Your task to perform on an android device: Add "usb-a" to the cart on ebay.com, then select checkout. Image 0: 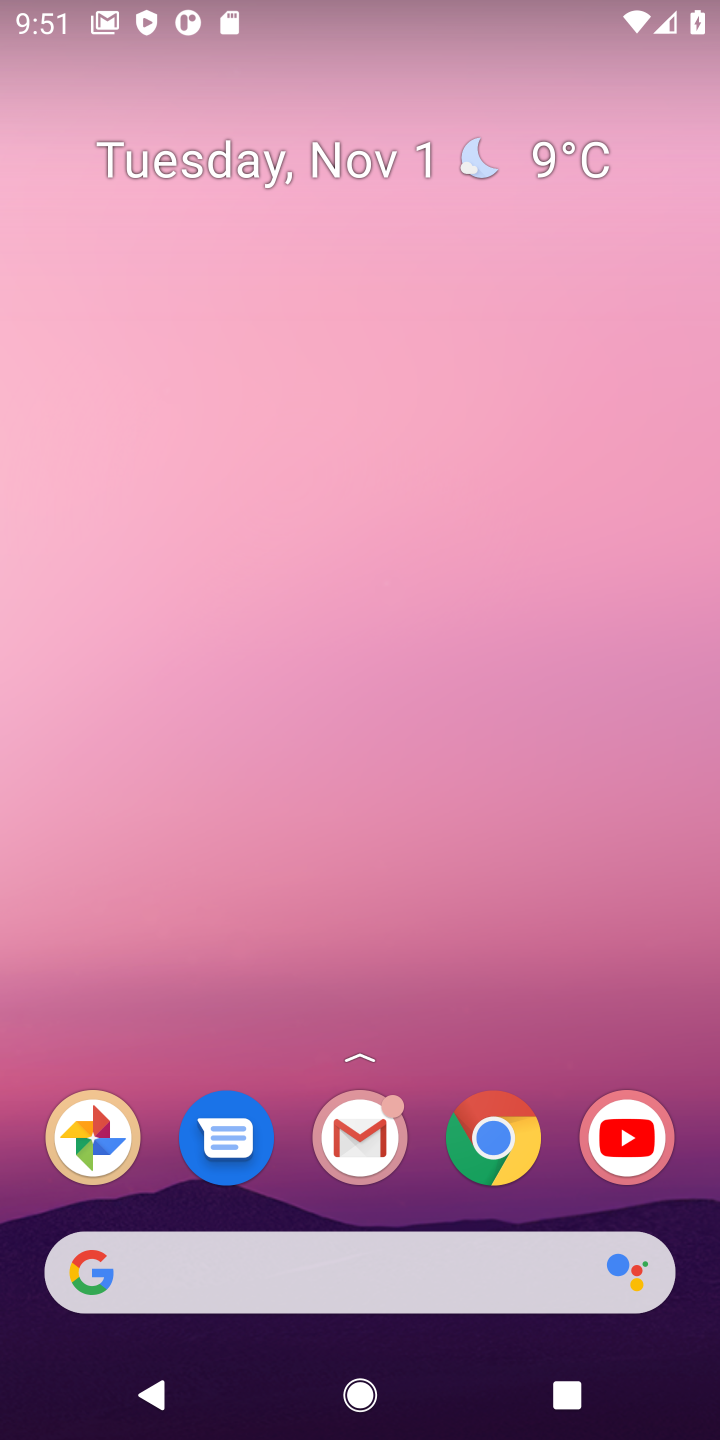
Step 0: click (502, 1129)
Your task to perform on an android device: Add "usb-a" to the cart on ebay.com, then select checkout. Image 1: 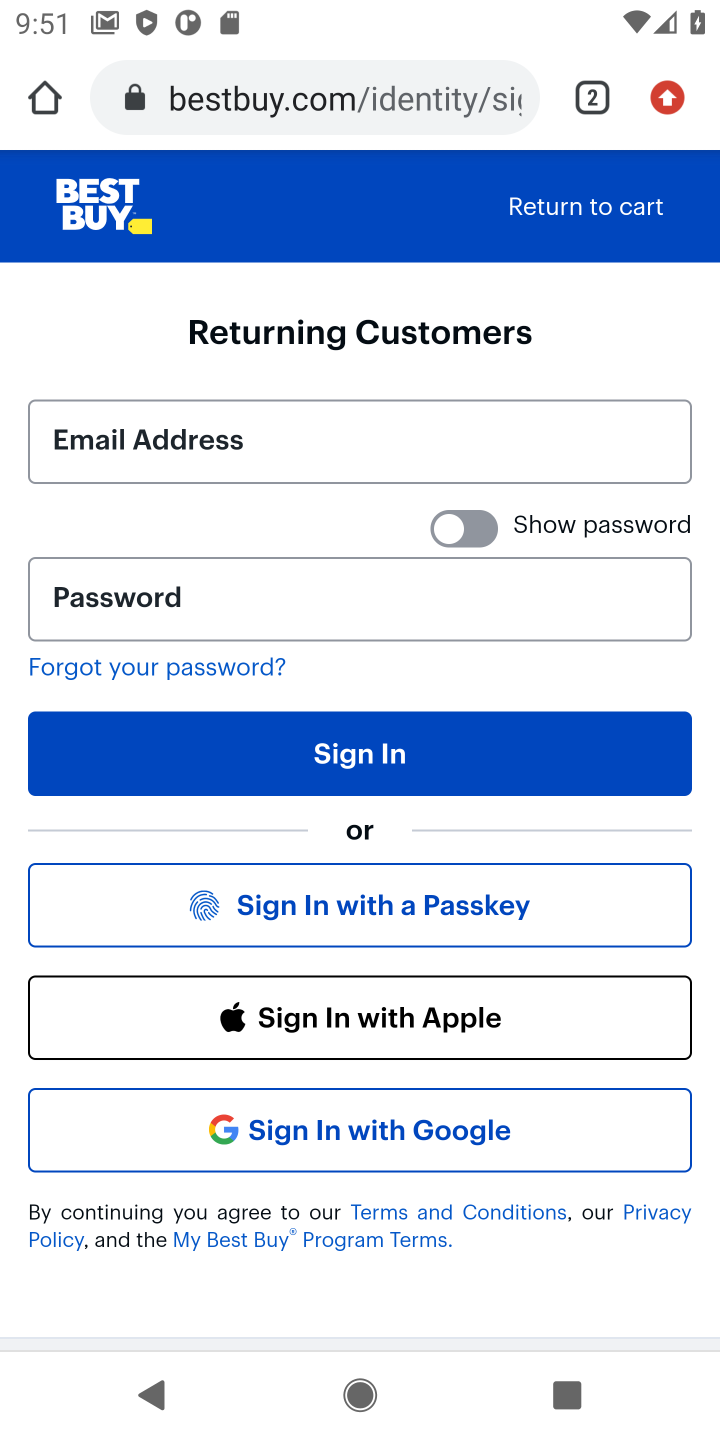
Step 1: click (589, 106)
Your task to perform on an android device: Add "usb-a" to the cart on ebay.com, then select checkout. Image 2: 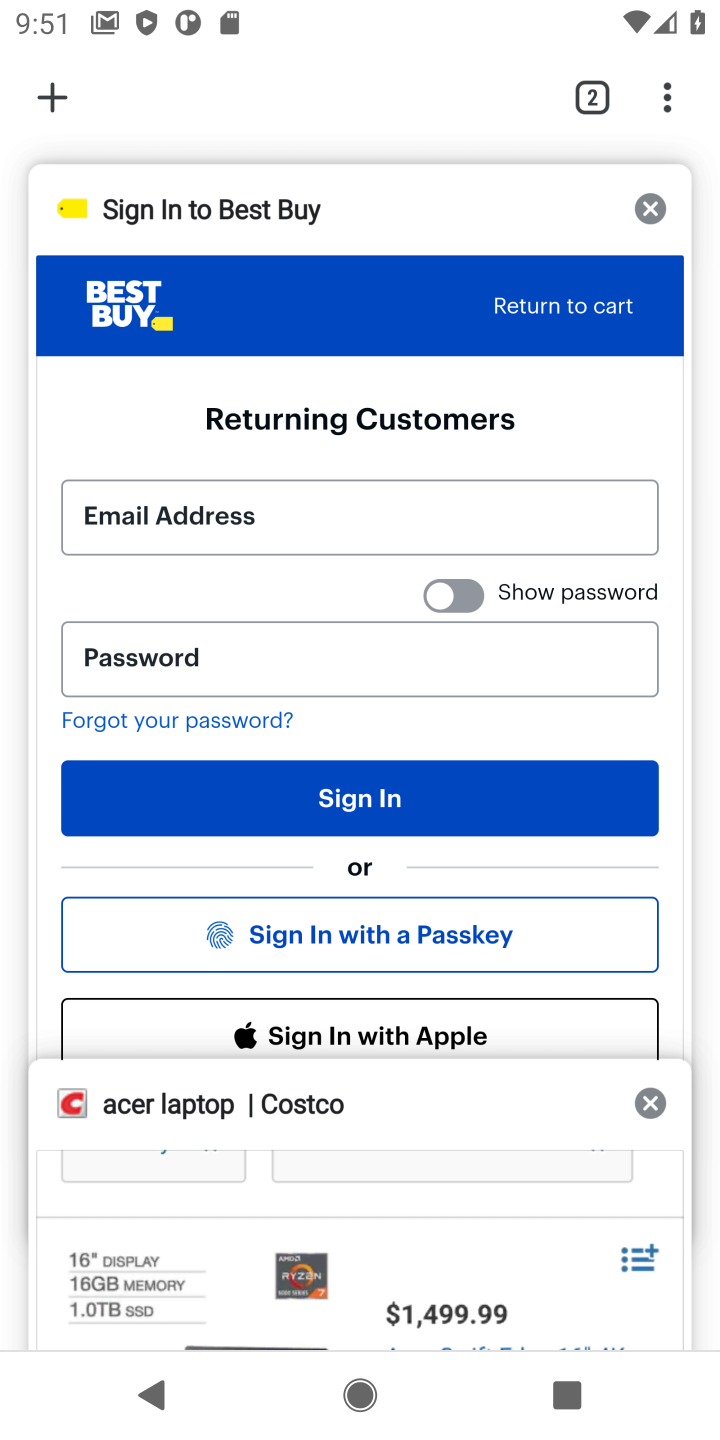
Step 2: click (52, 100)
Your task to perform on an android device: Add "usb-a" to the cart on ebay.com, then select checkout. Image 3: 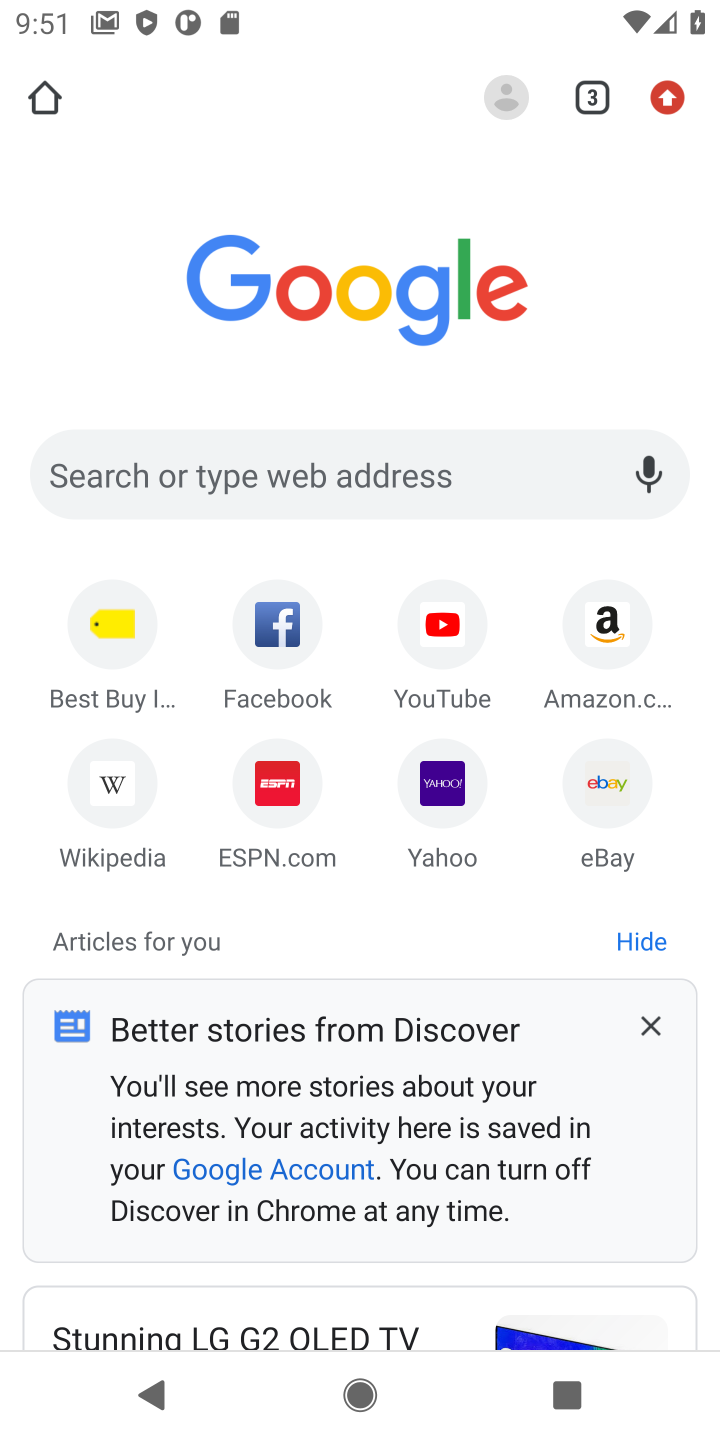
Step 3: click (435, 469)
Your task to perform on an android device: Add "usb-a" to the cart on ebay.com, then select checkout. Image 4: 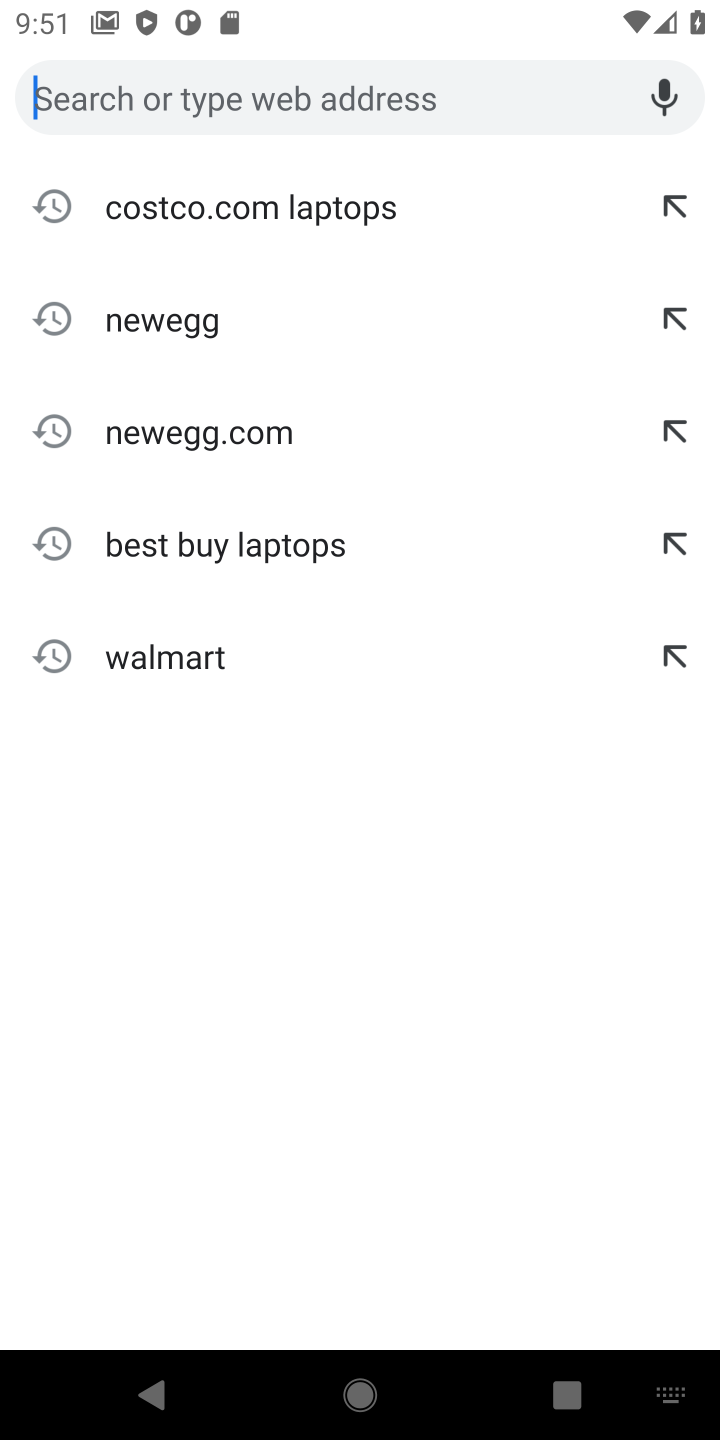
Step 4: type "ebay"
Your task to perform on an android device: Add "usb-a" to the cart on ebay.com, then select checkout. Image 5: 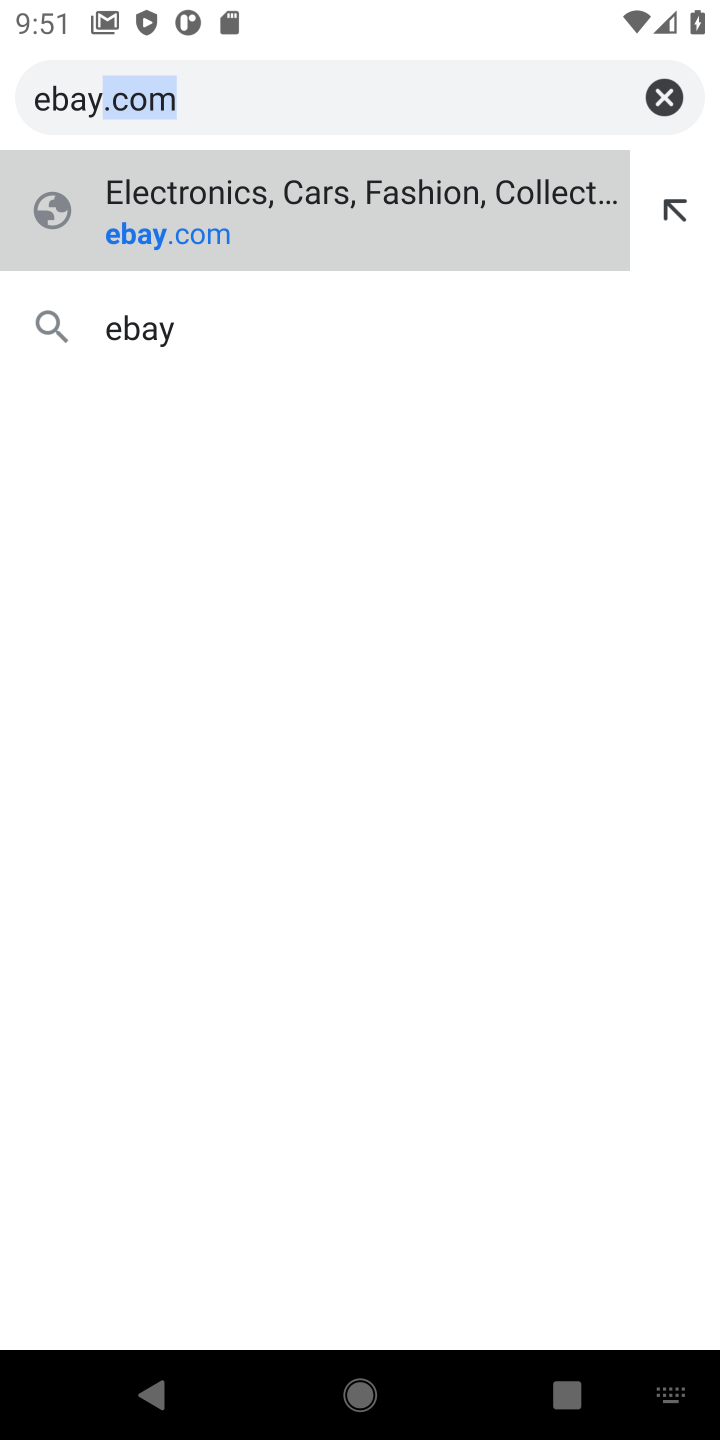
Step 5: click (205, 230)
Your task to perform on an android device: Add "usb-a" to the cart on ebay.com, then select checkout. Image 6: 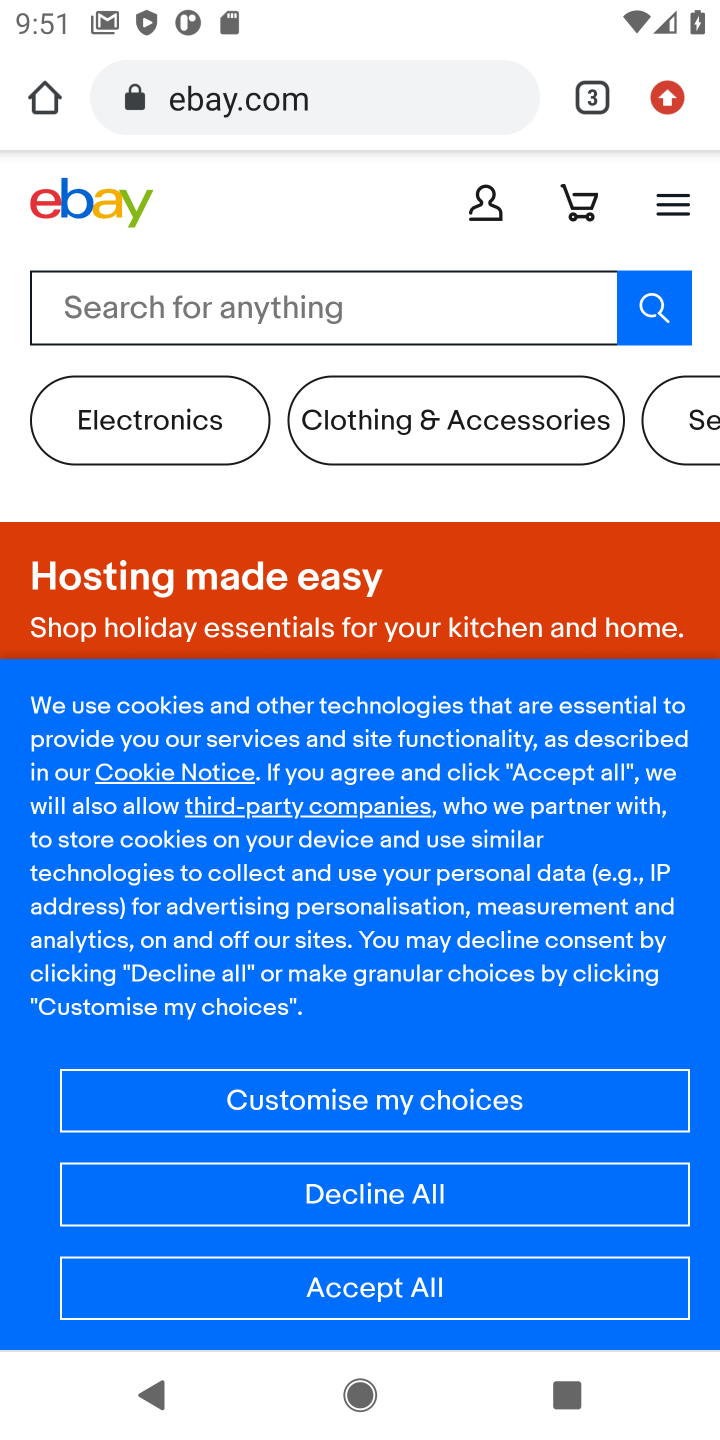
Step 6: click (307, 294)
Your task to perform on an android device: Add "usb-a" to the cart on ebay.com, then select checkout. Image 7: 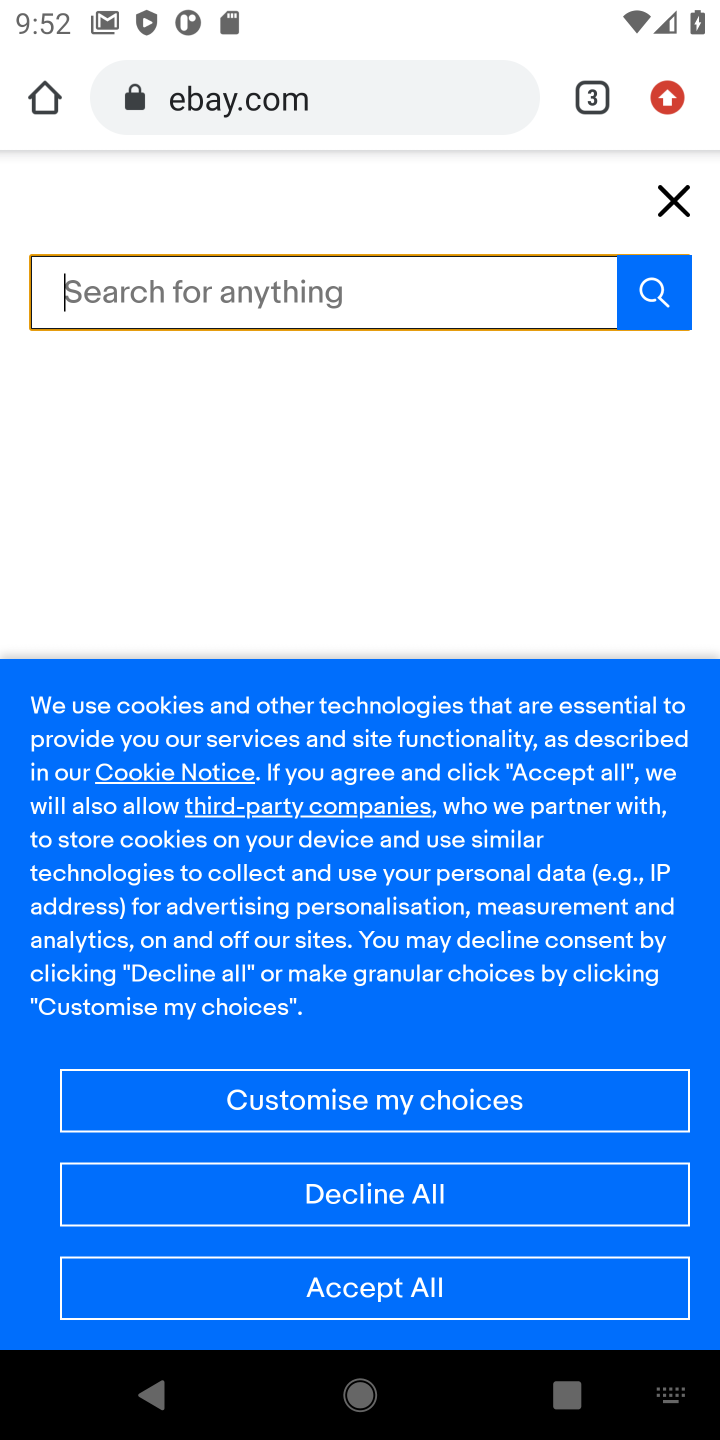
Step 7: type "usb-a"
Your task to perform on an android device: Add "usb-a" to the cart on ebay.com, then select checkout. Image 8: 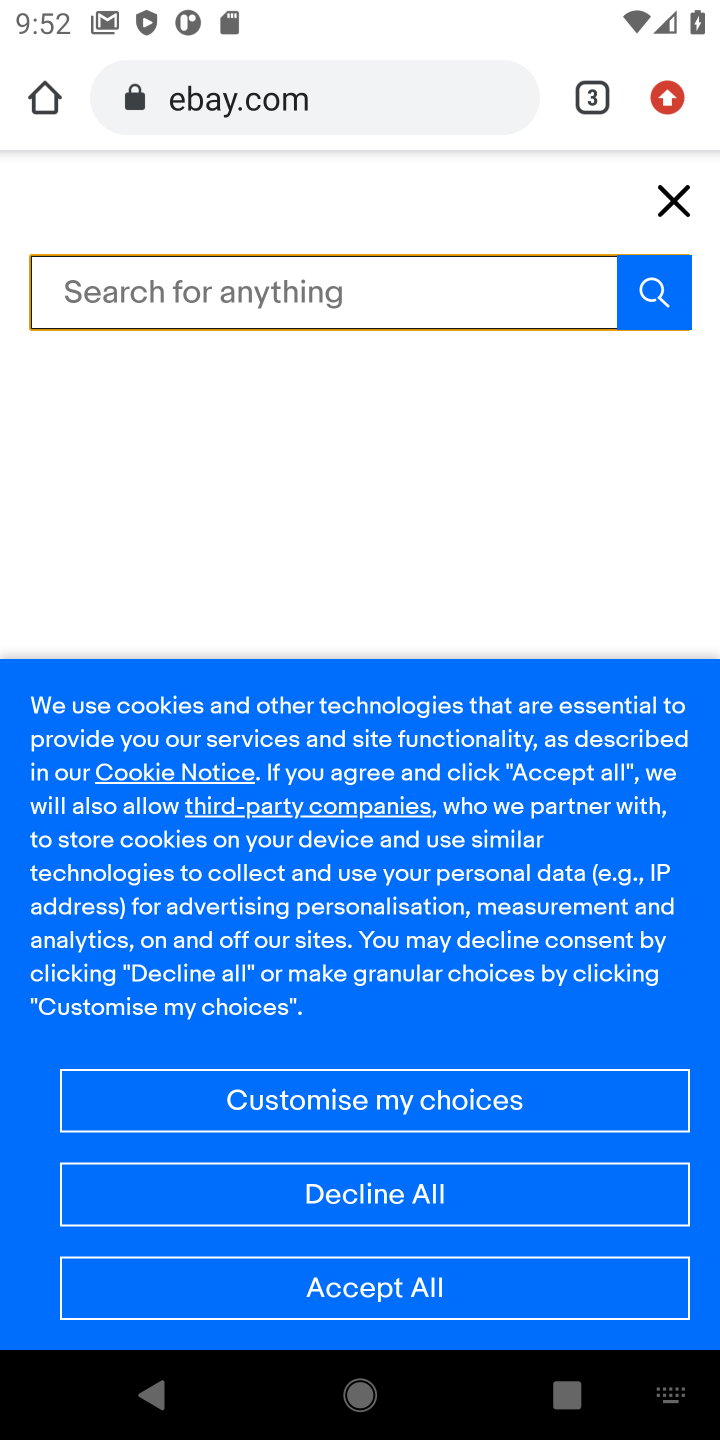
Step 8: click (507, 1179)
Your task to perform on an android device: Add "usb-a" to the cart on ebay.com, then select checkout. Image 9: 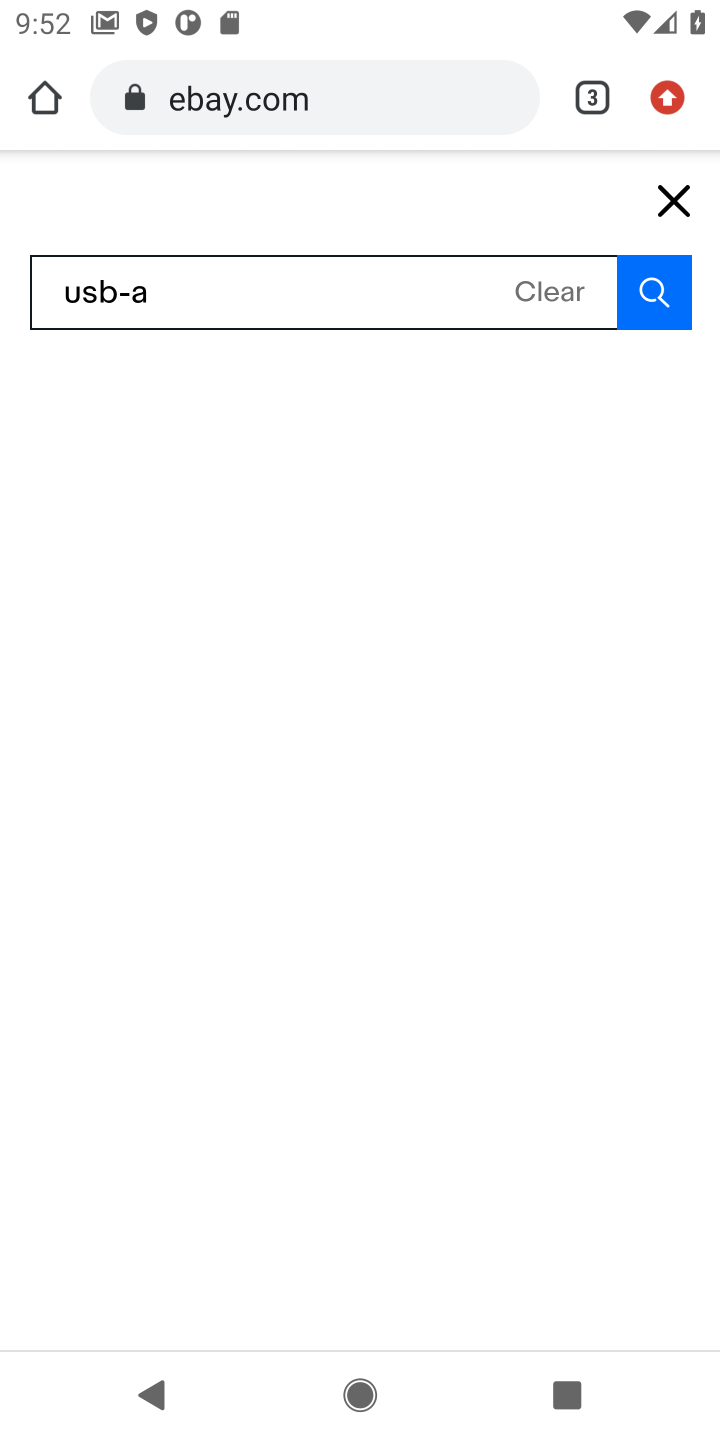
Step 9: click (649, 291)
Your task to perform on an android device: Add "usb-a" to the cart on ebay.com, then select checkout. Image 10: 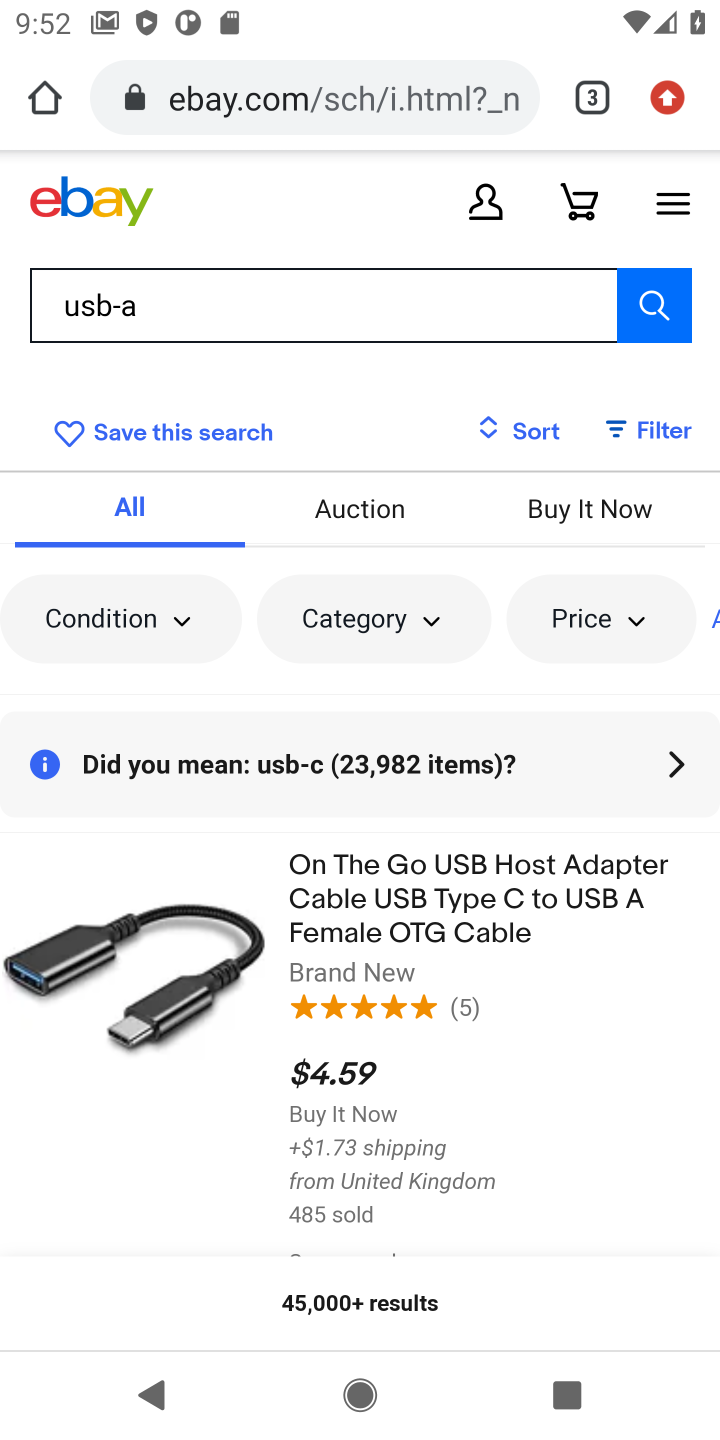
Step 10: click (414, 885)
Your task to perform on an android device: Add "usb-a" to the cart on ebay.com, then select checkout. Image 11: 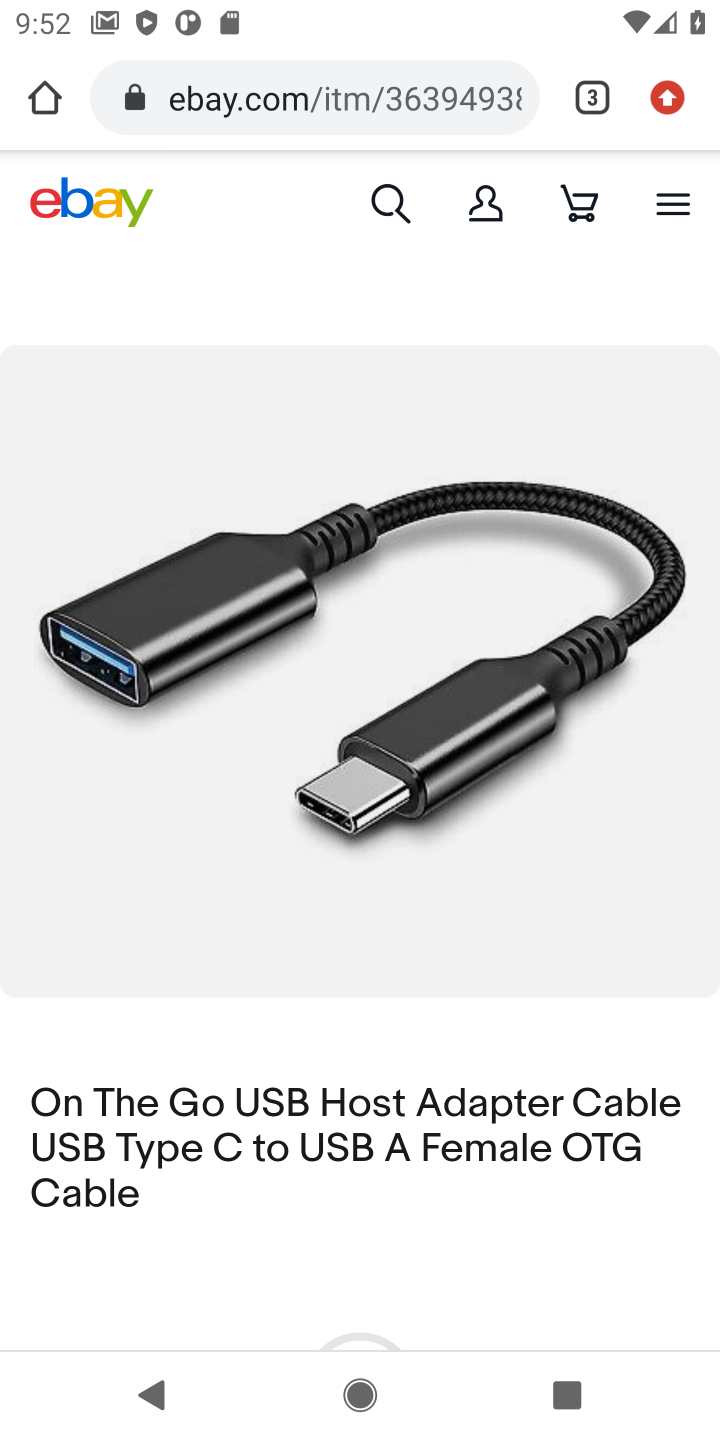
Step 11: drag from (470, 1049) to (545, 417)
Your task to perform on an android device: Add "usb-a" to the cart on ebay.com, then select checkout. Image 12: 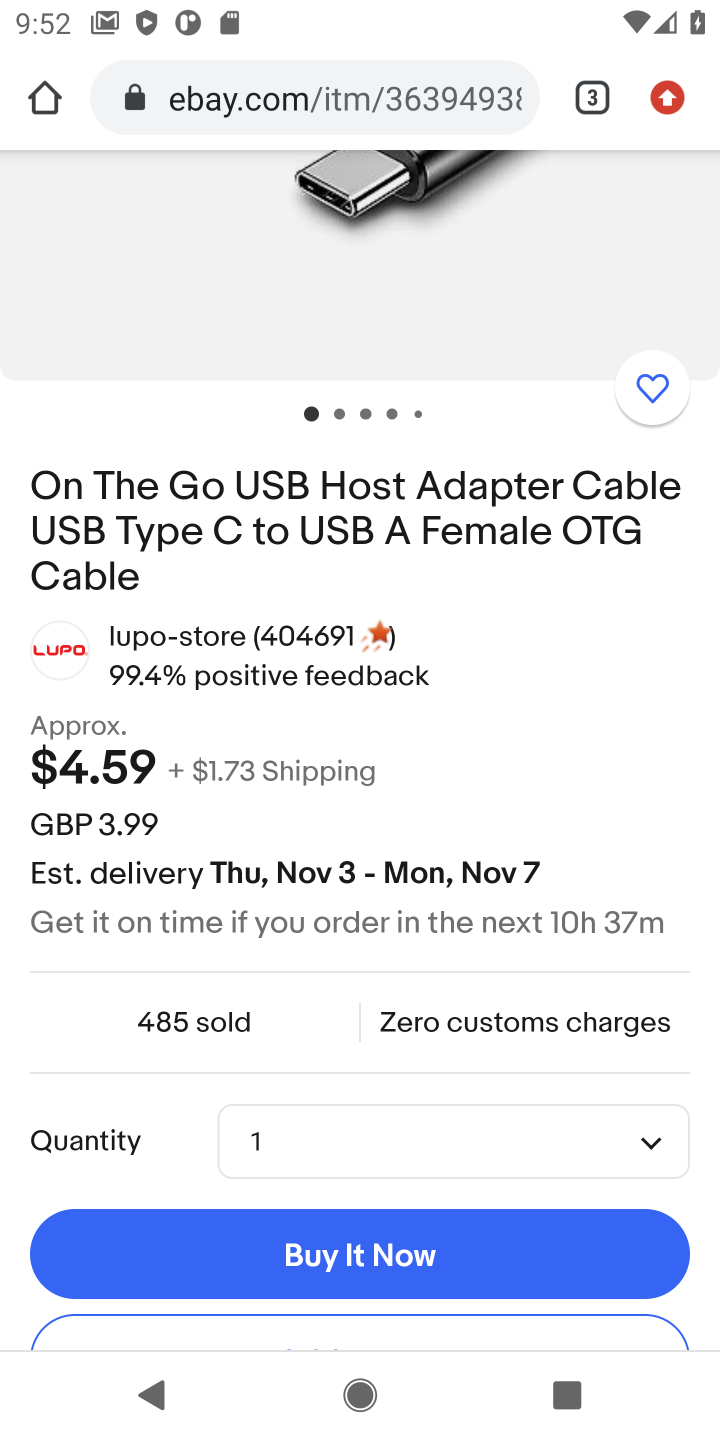
Step 12: drag from (332, 1264) to (578, 379)
Your task to perform on an android device: Add "usb-a" to the cart on ebay.com, then select checkout. Image 13: 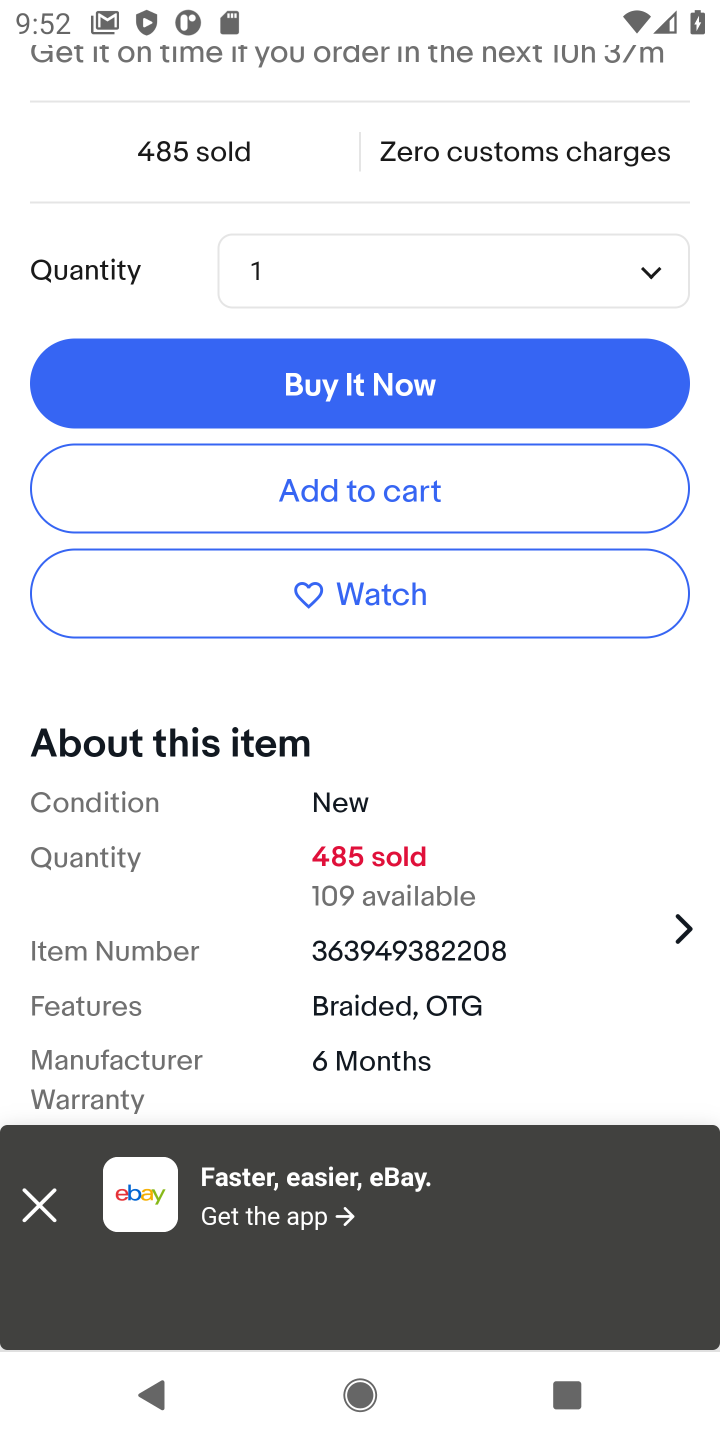
Step 13: click (364, 504)
Your task to perform on an android device: Add "usb-a" to the cart on ebay.com, then select checkout. Image 14: 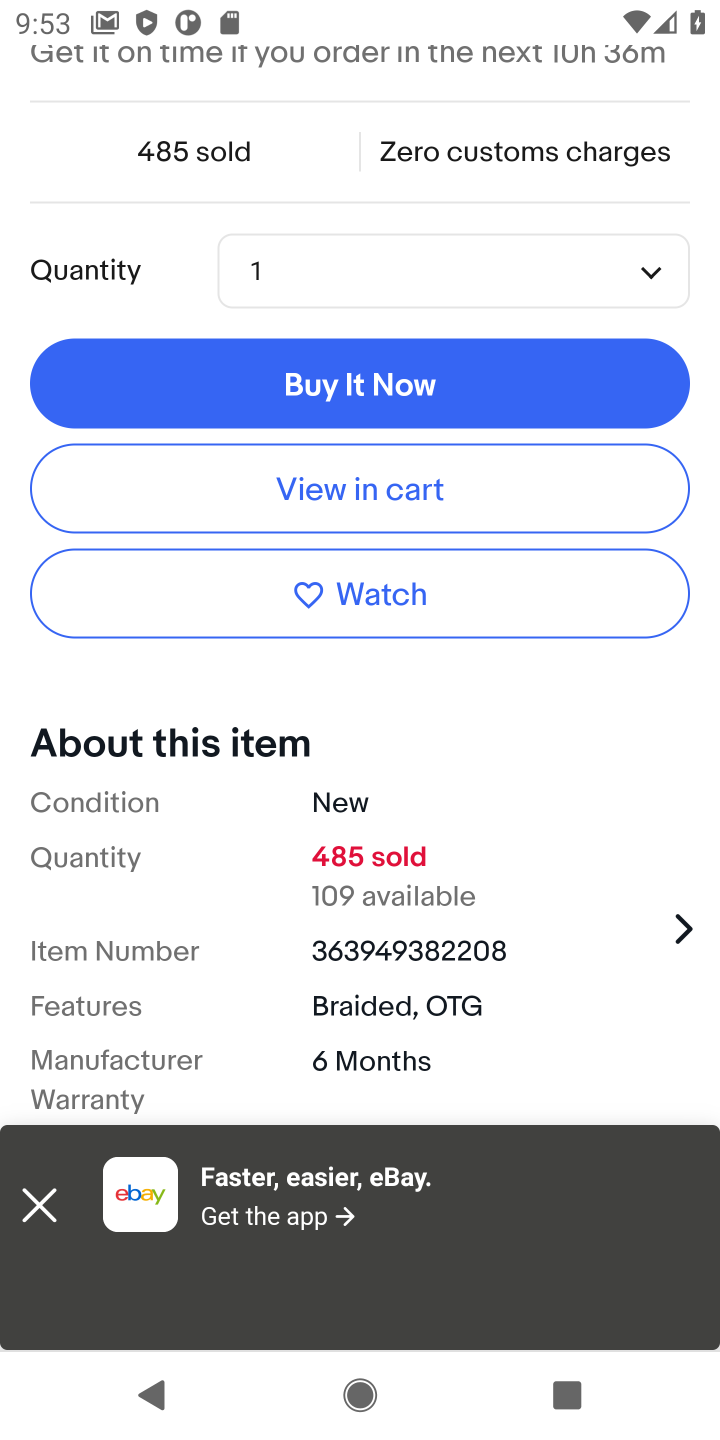
Step 14: click (343, 509)
Your task to perform on an android device: Add "usb-a" to the cart on ebay.com, then select checkout. Image 15: 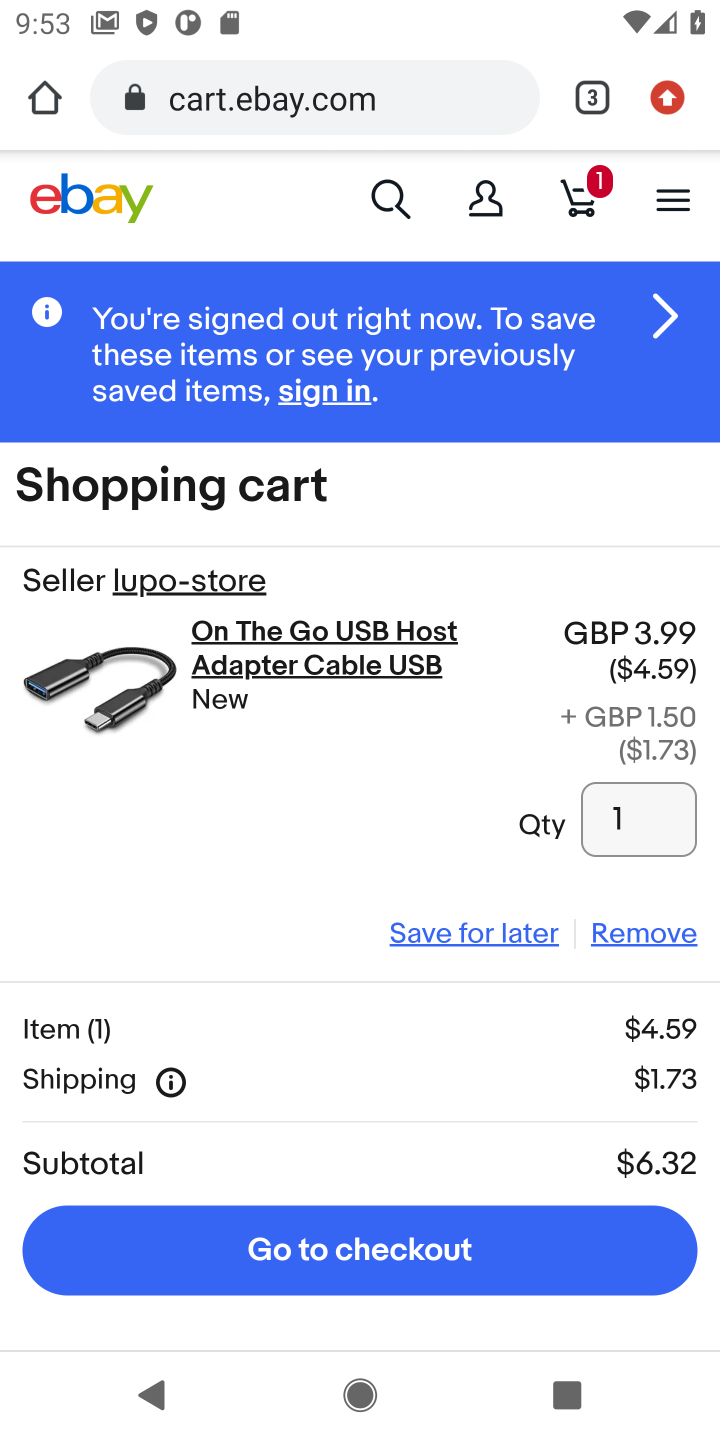
Step 15: click (434, 1258)
Your task to perform on an android device: Add "usb-a" to the cart on ebay.com, then select checkout. Image 16: 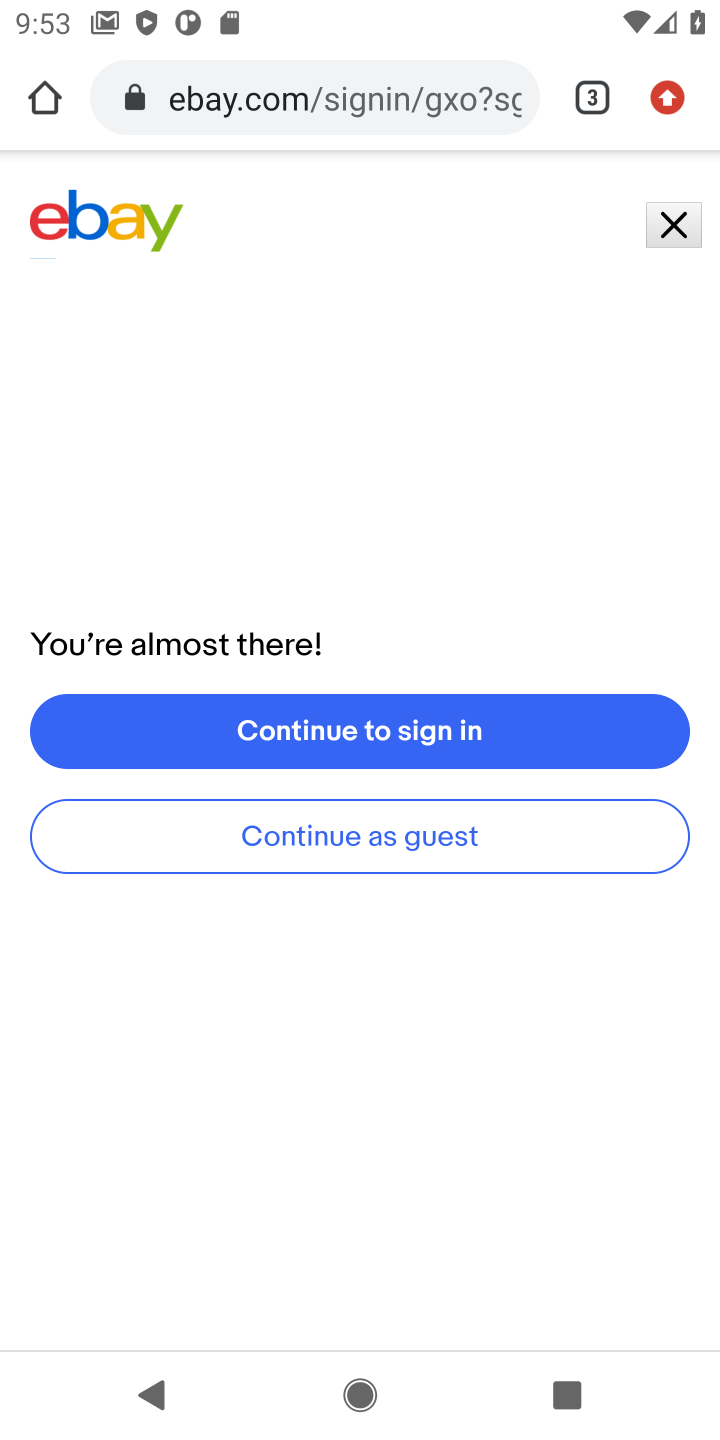
Step 16: task complete